Your task to perform on an android device: Open maps Image 0: 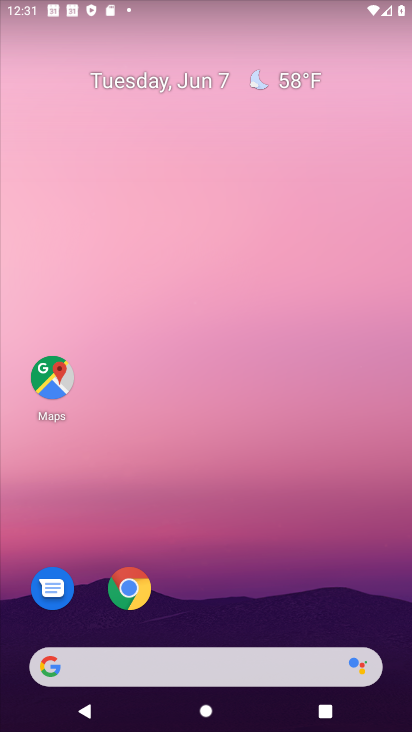
Step 0: click (55, 398)
Your task to perform on an android device: Open maps Image 1: 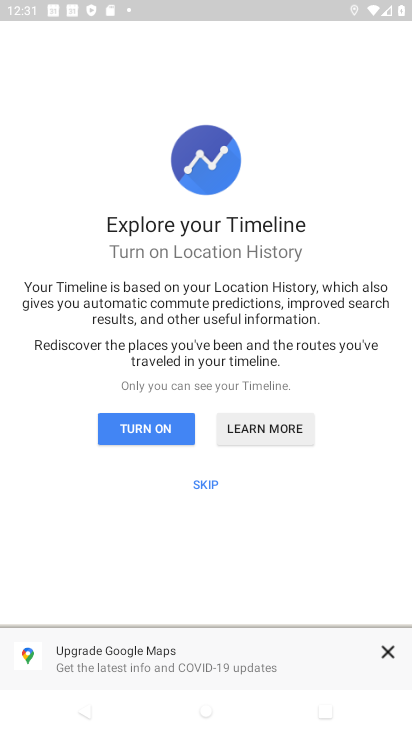
Step 1: task complete